Your task to perform on an android device: move a message to another label in the gmail app Image 0: 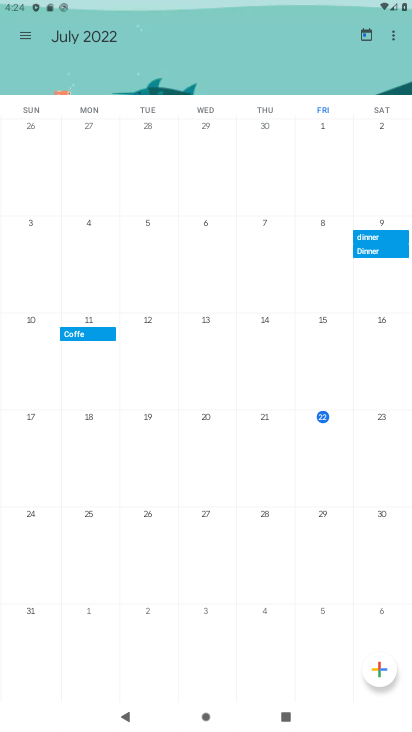
Step 0: press home button
Your task to perform on an android device: move a message to another label in the gmail app Image 1: 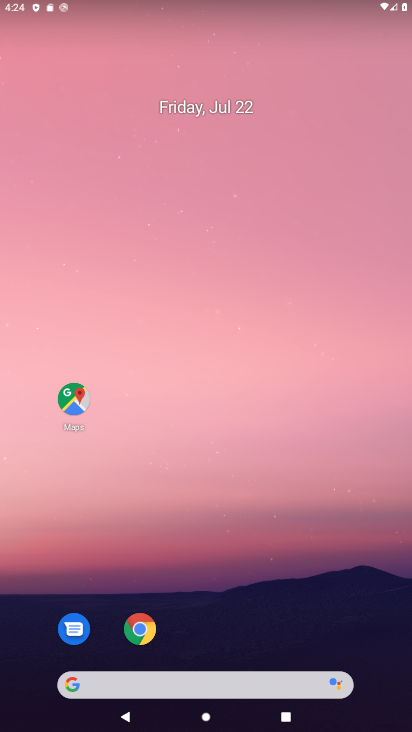
Step 1: drag from (256, 565) to (271, 255)
Your task to perform on an android device: move a message to another label in the gmail app Image 2: 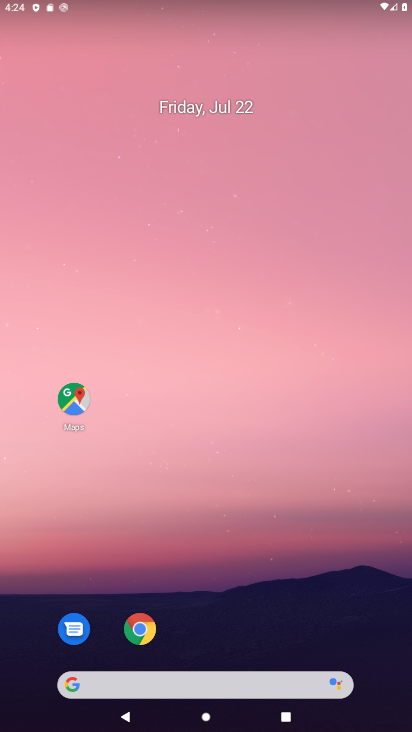
Step 2: drag from (238, 515) to (234, 254)
Your task to perform on an android device: move a message to another label in the gmail app Image 3: 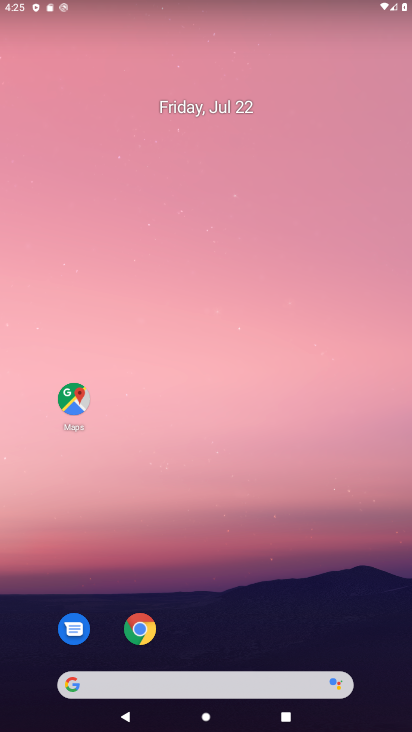
Step 3: drag from (248, 478) to (232, 106)
Your task to perform on an android device: move a message to another label in the gmail app Image 4: 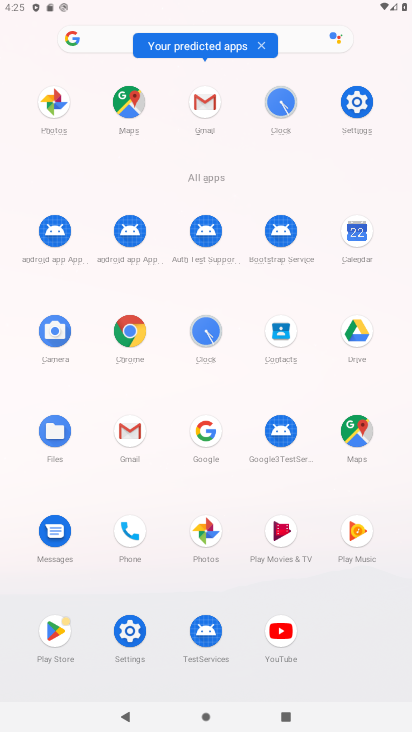
Step 4: click (133, 428)
Your task to perform on an android device: move a message to another label in the gmail app Image 5: 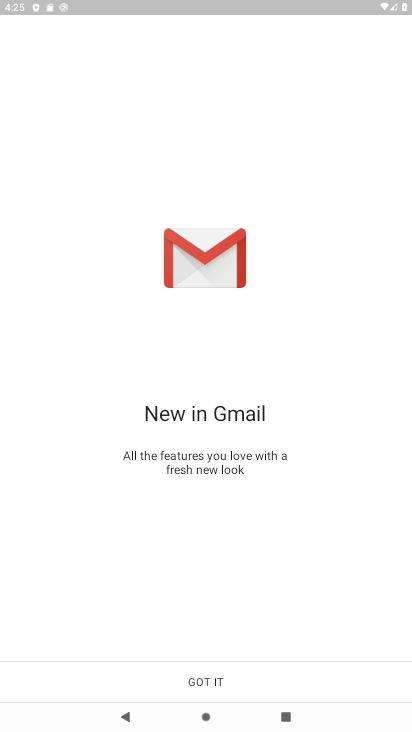
Step 5: click (211, 685)
Your task to perform on an android device: move a message to another label in the gmail app Image 6: 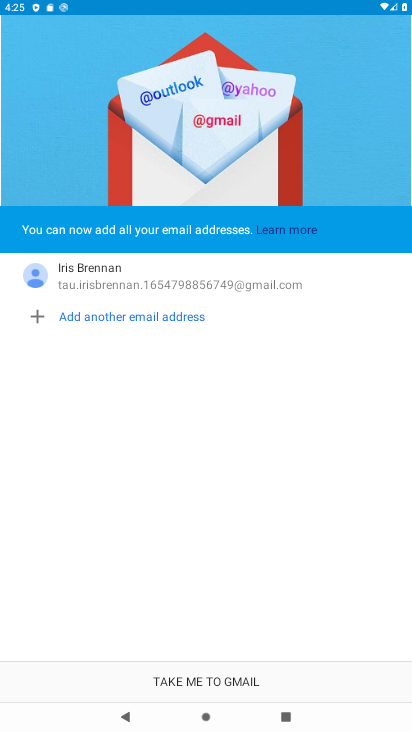
Step 6: click (211, 685)
Your task to perform on an android device: move a message to another label in the gmail app Image 7: 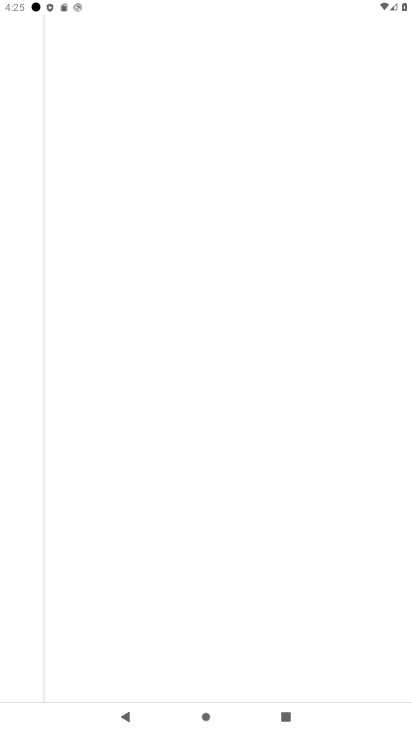
Step 7: click (211, 685)
Your task to perform on an android device: move a message to another label in the gmail app Image 8: 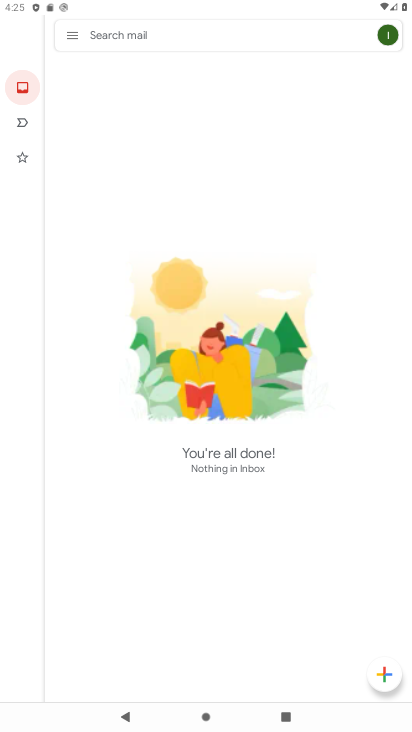
Step 8: task complete